Your task to perform on an android device: Go to Amazon Image 0: 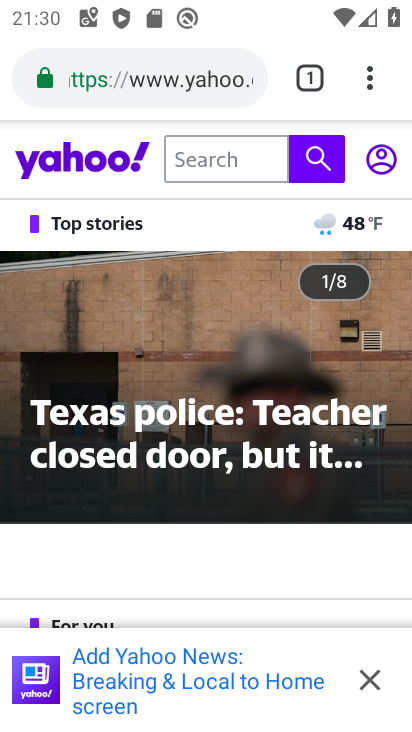
Step 0: press home button
Your task to perform on an android device: Go to Amazon Image 1: 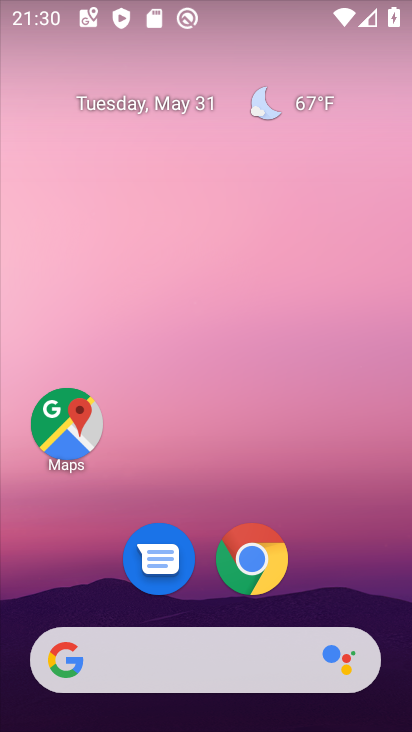
Step 1: click (262, 562)
Your task to perform on an android device: Go to Amazon Image 2: 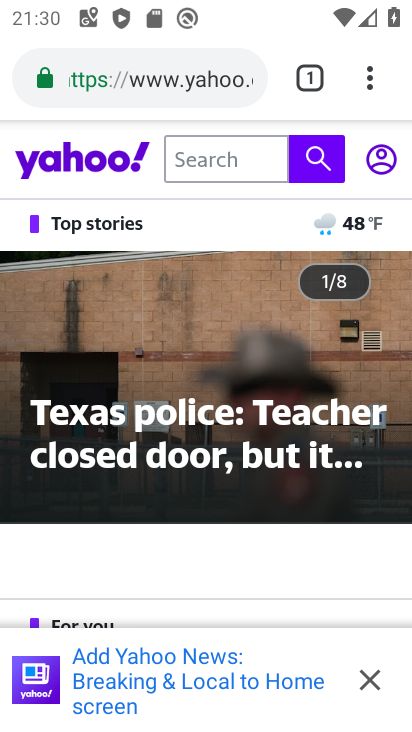
Step 2: press back button
Your task to perform on an android device: Go to Amazon Image 3: 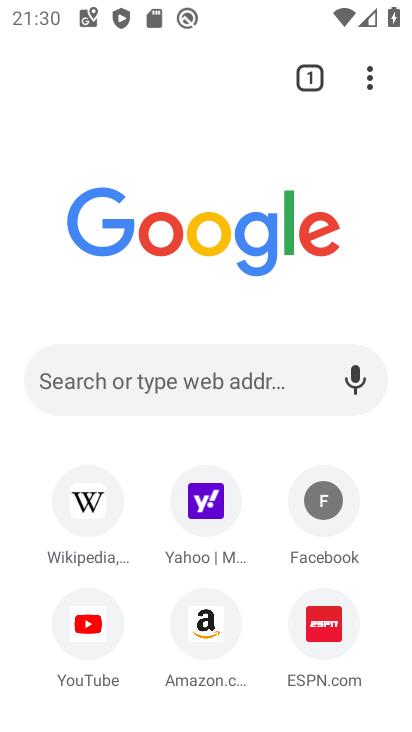
Step 3: click (207, 622)
Your task to perform on an android device: Go to Amazon Image 4: 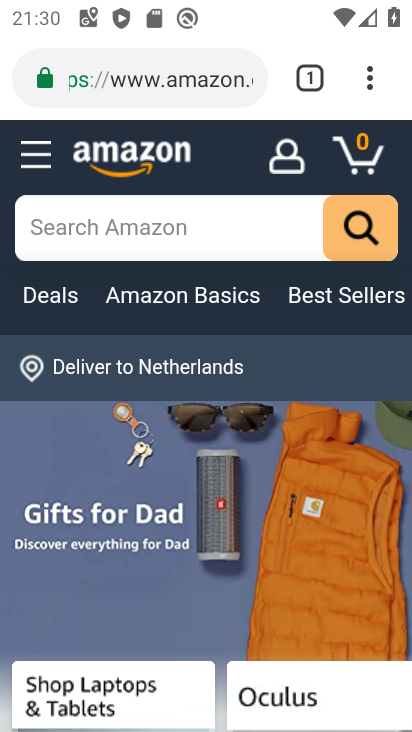
Step 4: task complete